Your task to perform on an android device: Search for pizza restaurants on Maps Image 0: 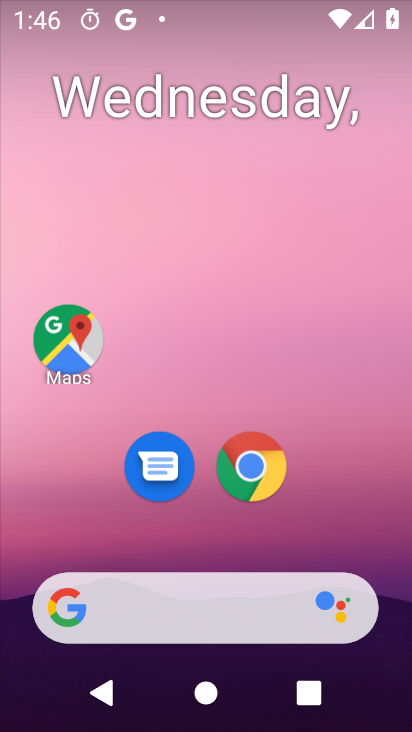
Step 0: click (77, 348)
Your task to perform on an android device: Search for pizza restaurants on Maps Image 1: 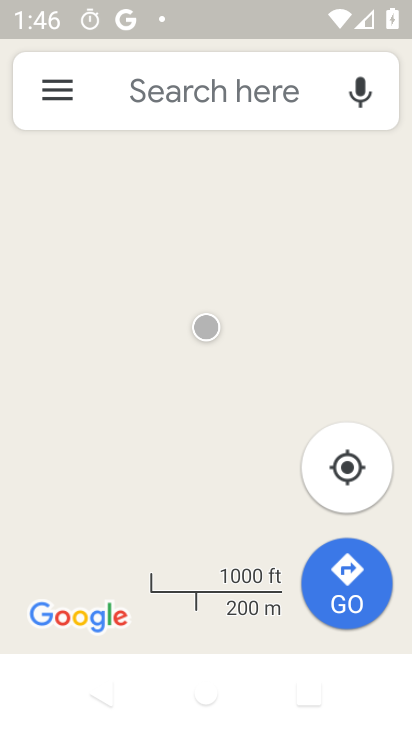
Step 1: click (148, 87)
Your task to perform on an android device: Search for pizza restaurants on Maps Image 2: 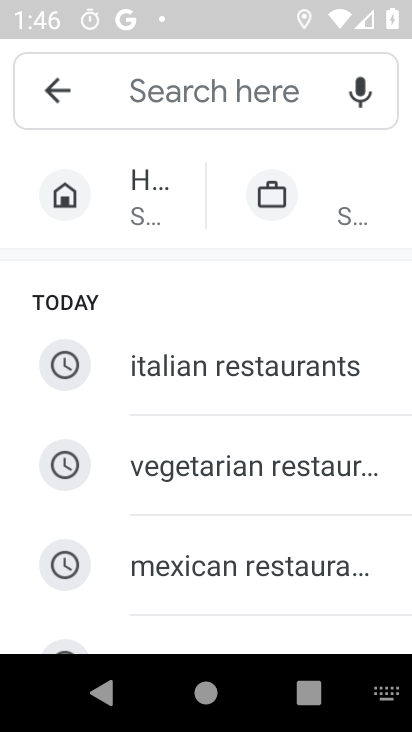
Step 2: drag from (166, 537) to (166, 201)
Your task to perform on an android device: Search for pizza restaurants on Maps Image 3: 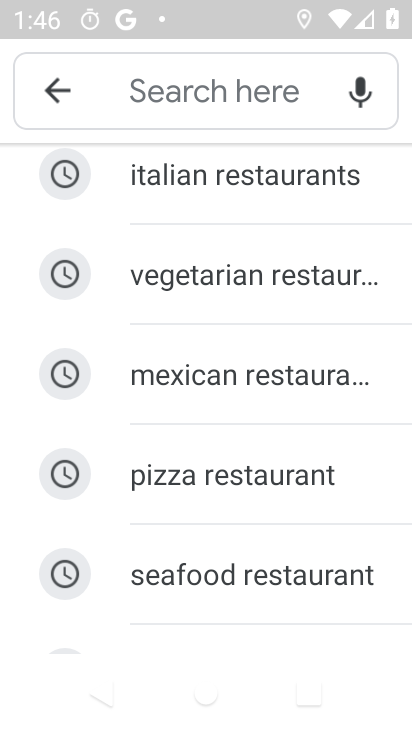
Step 3: click (201, 475)
Your task to perform on an android device: Search for pizza restaurants on Maps Image 4: 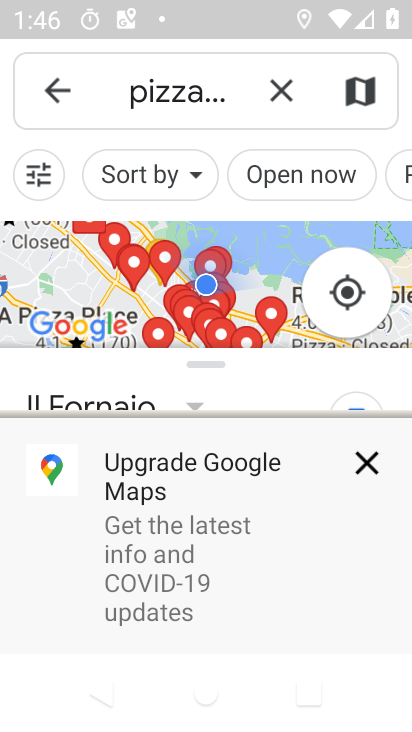
Step 4: task complete